Your task to perform on an android device: Open the web browser Image 0: 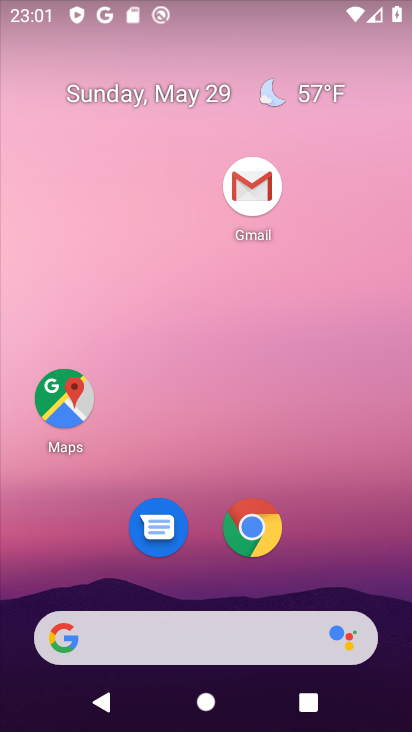
Step 0: click (254, 528)
Your task to perform on an android device: Open the web browser Image 1: 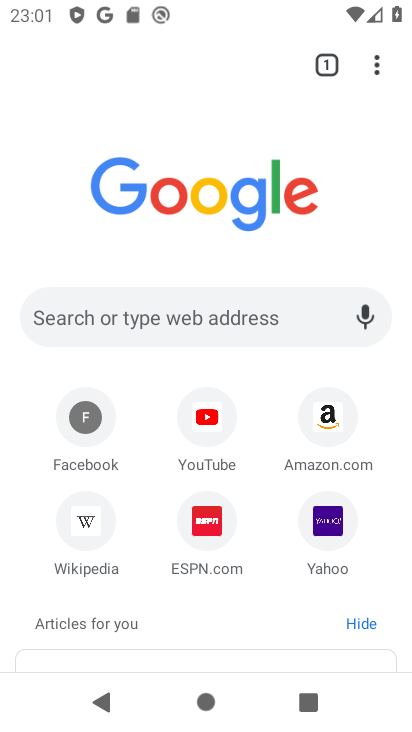
Step 1: task complete